Your task to perform on an android device: Open Google Maps and go to "Timeline" Image 0: 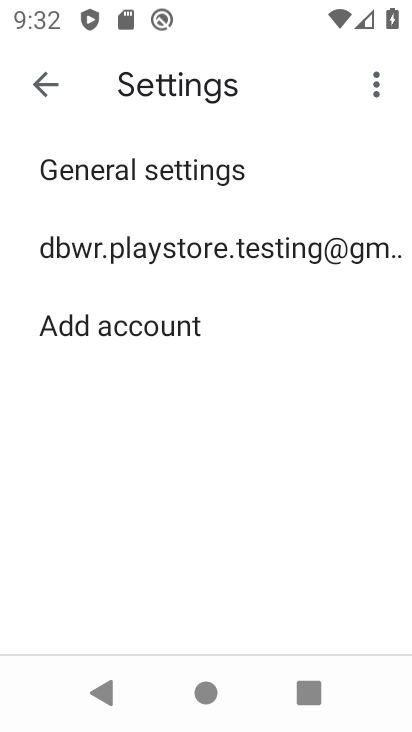
Step 0: press home button
Your task to perform on an android device: Open Google Maps and go to "Timeline" Image 1: 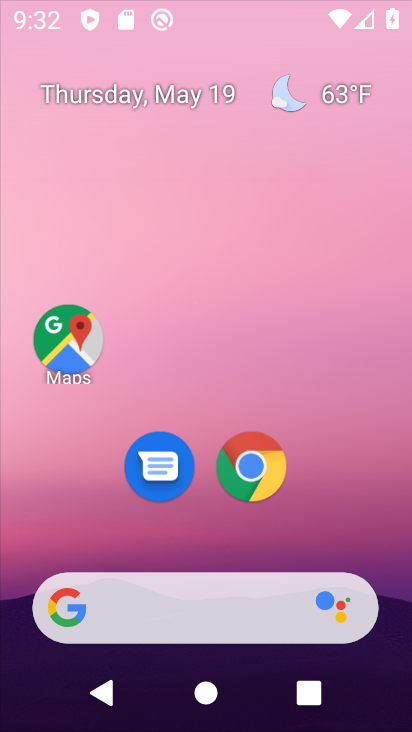
Step 1: drag from (385, 629) to (298, 103)
Your task to perform on an android device: Open Google Maps and go to "Timeline" Image 2: 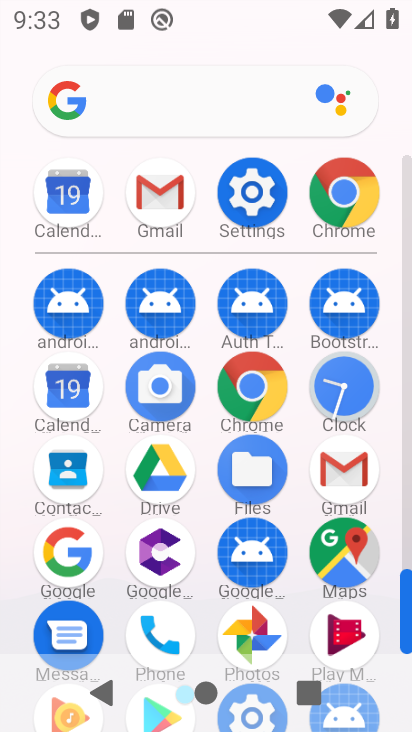
Step 2: click (339, 563)
Your task to perform on an android device: Open Google Maps and go to "Timeline" Image 3: 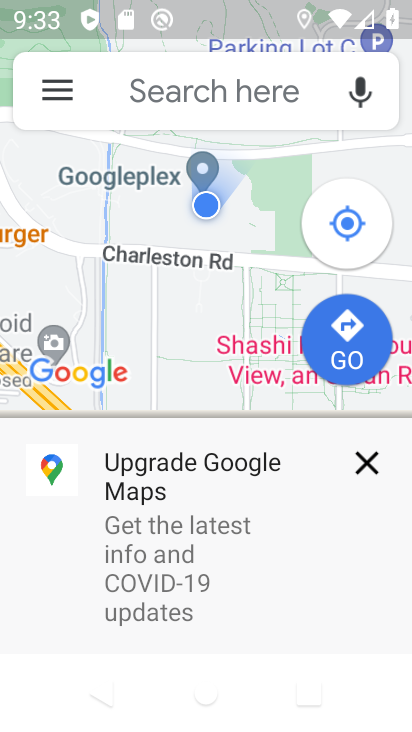
Step 3: click (50, 83)
Your task to perform on an android device: Open Google Maps and go to "Timeline" Image 4: 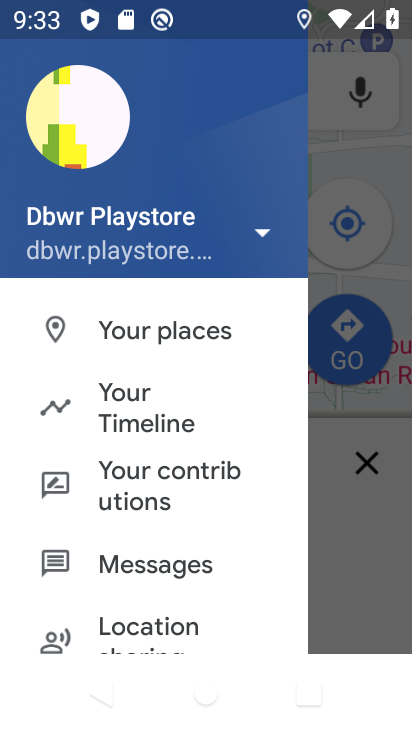
Step 4: click (209, 415)
Your task to perform on an android device: Open Google Maps and go to "Timeline" Image 5: 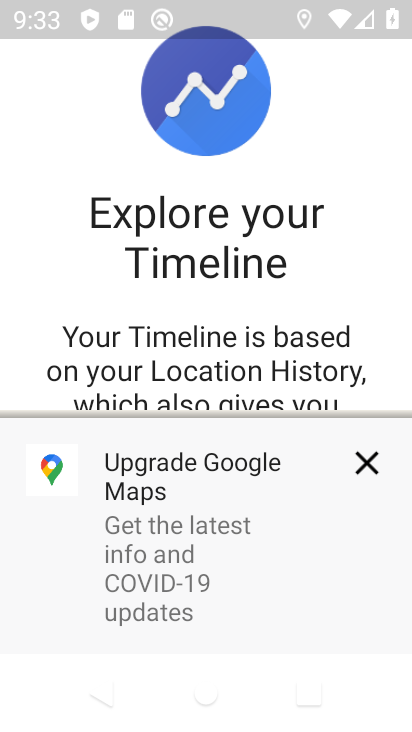
Step 5: task complete